Your task to perform on an android device: turn off location Image 0: 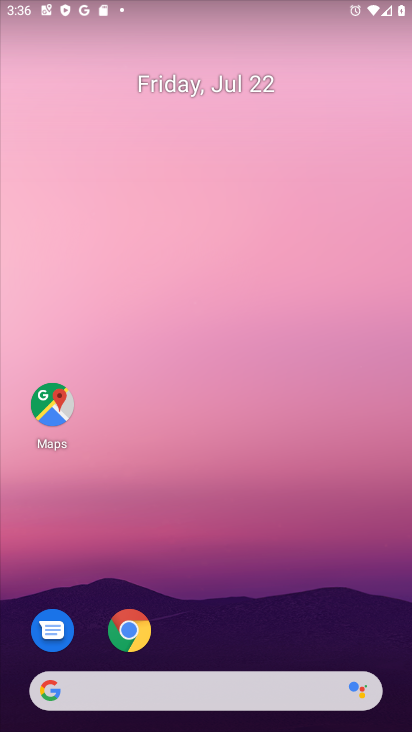
Step 0: drag from (161, 687) to (155, 145)
Your task to perform on an android device: turn off location Image 1: 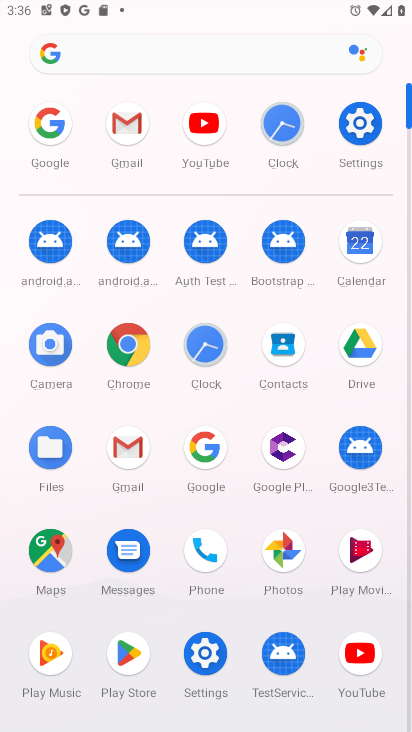
Step 1: click (349, 122)
Your task to perform on an android device: turn off location Image 2: 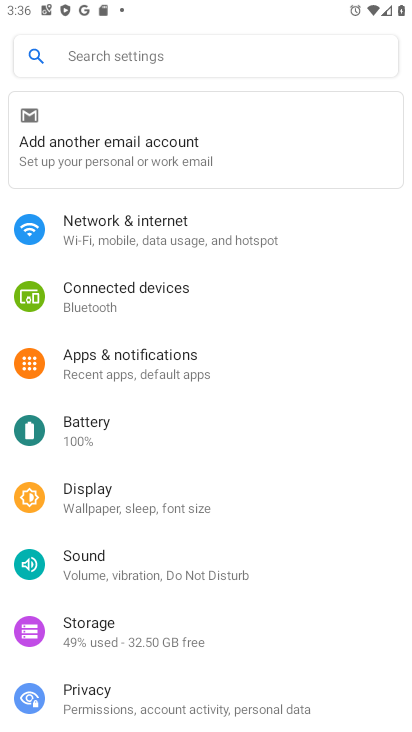
Step 2: drag from (130, 641) to (91, 258)
Your task to perform on an android device: turn off location Image 3: 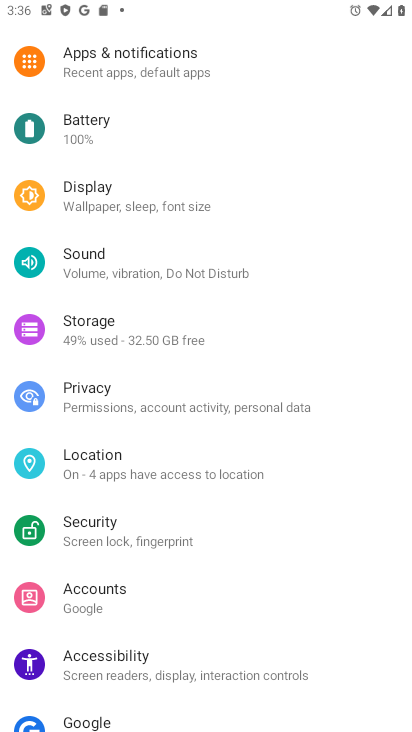
Step 3: click (116, 482)
Your task to perform on an android device: turn off location Image 4: 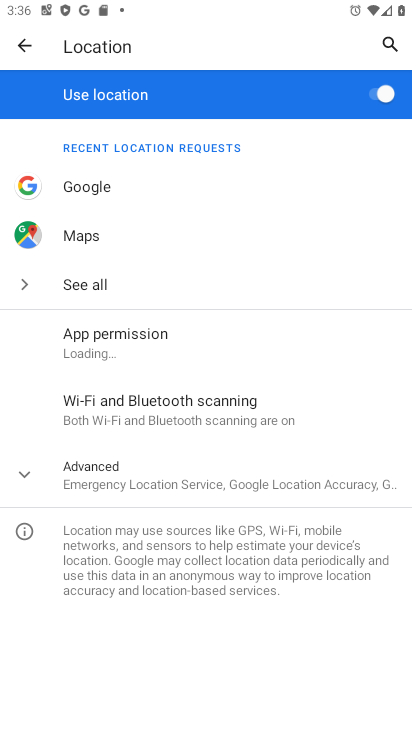
Step 4: click (371, 102)
Your task to perform on an android device: turn off location Image 5: 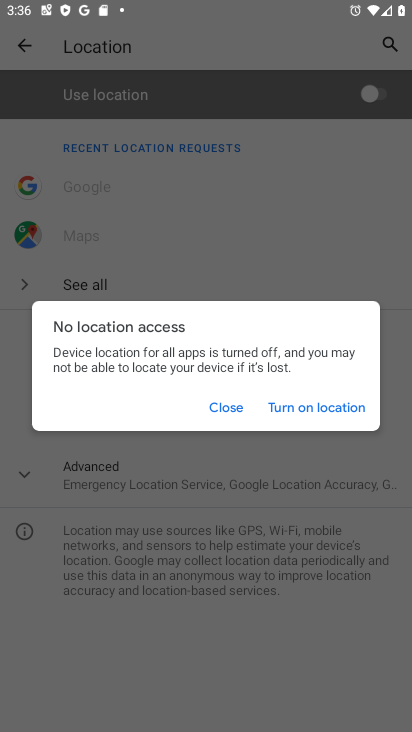
Step 5: click (223, 397)
Your task to perform on an android device: turn off location Image 6: 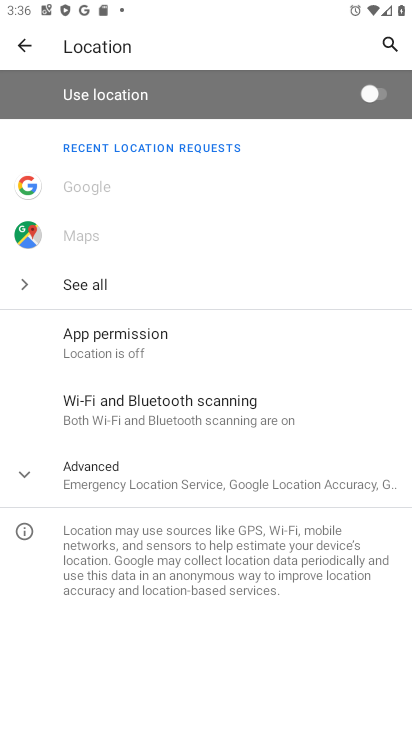
Step 6: task complete